Your task to perform on an android device: Open location settings Image 0: 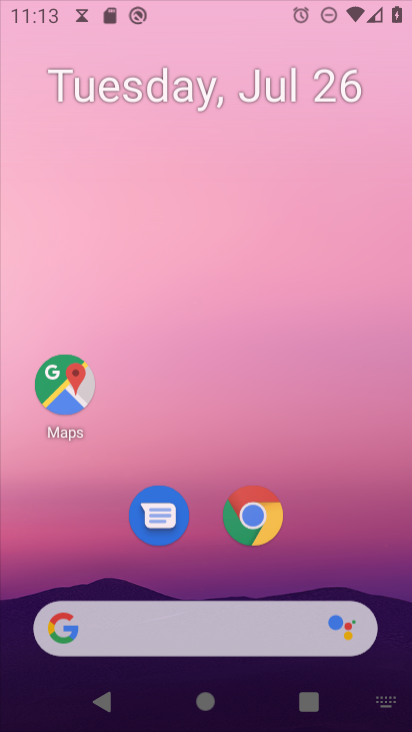
Step 0: press home button
Your task to perform on an android device: Open location settings Image 1: 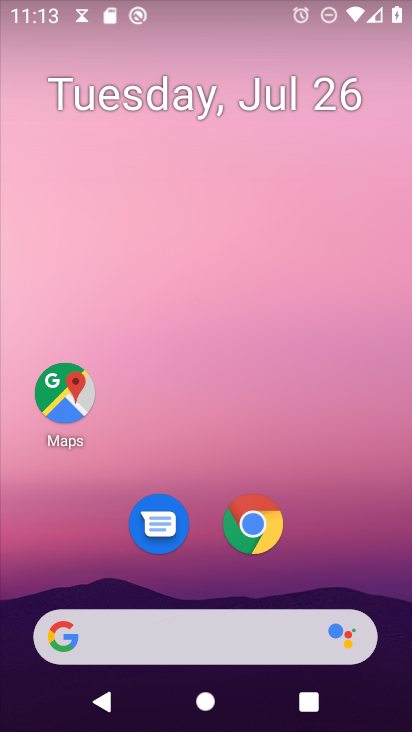
Step 1: drag from (221, 632) to (293, 150)
Your task to perform on an android device: Open location settings Image 2: 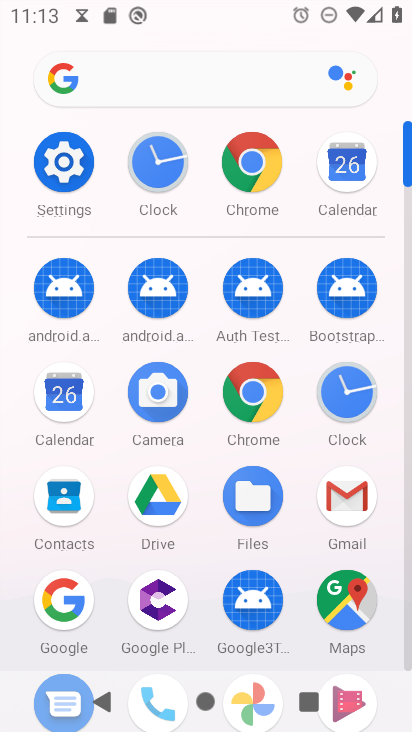
Step 2: click (62, 171)
Your task to perform on an android device: Open location settings Image 3: 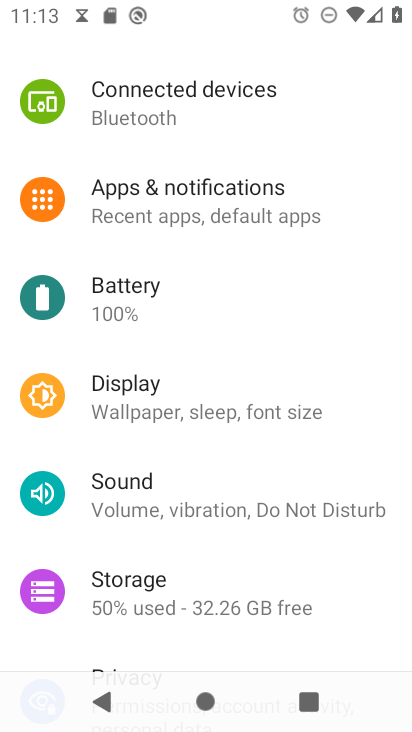
Step 3: drag from (231, 549) to (322, 124)
Your task to perform on an android device: Open location settings Image 4: 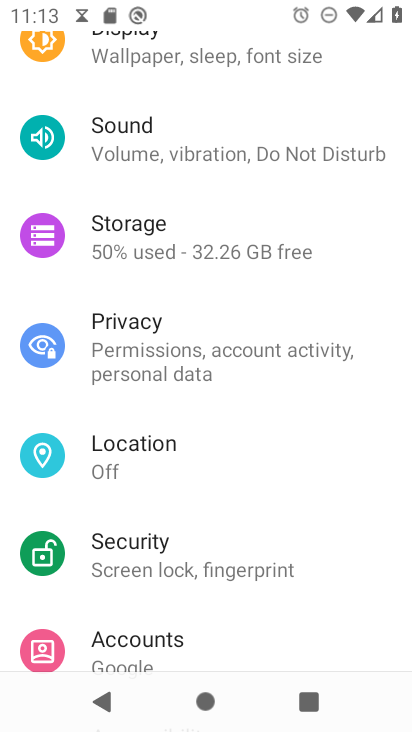
Step 4: click (158, 455)
Your task to perform on an android device: Open location settings Image 5: 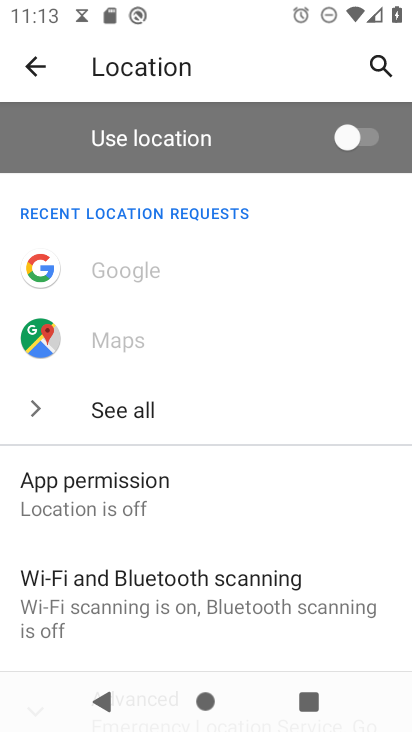
Step 5: task complete